Your task to perform on an android device: Open Android settings Image 0: 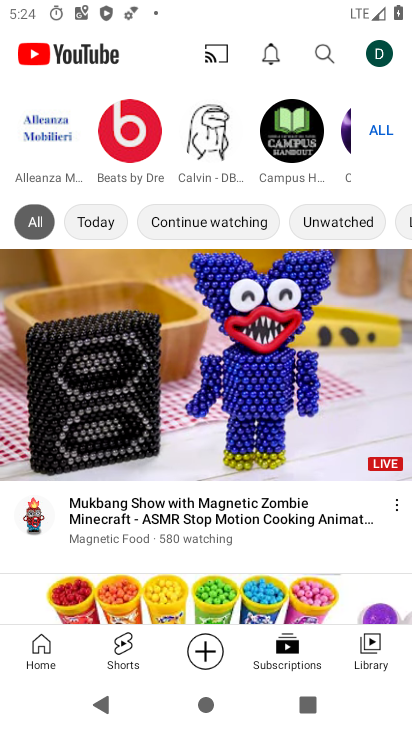
Step 0: press home button
Your task to perform on an android device: Open Android settings Image 1: 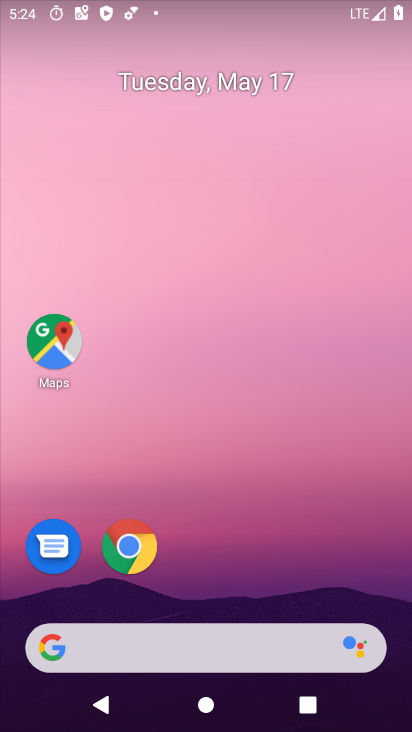
Step 1: drag from (270, 595) to (260, 151)
Your task to perform on an android device: Open Android settings Image 2: 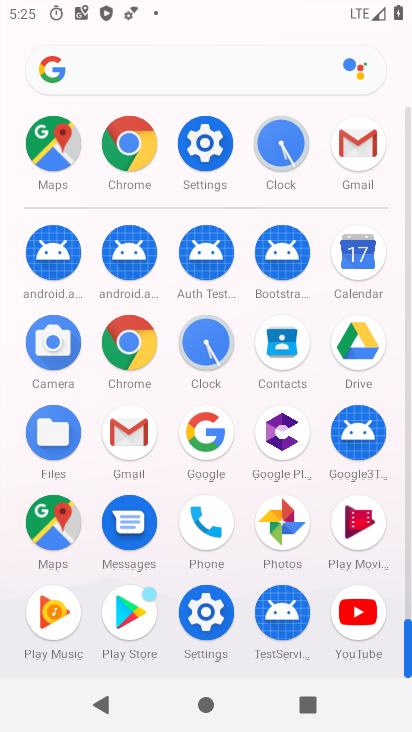
Step 2: click (203, 620)
Your task to perform on an android device: Open Android settings Image 3: 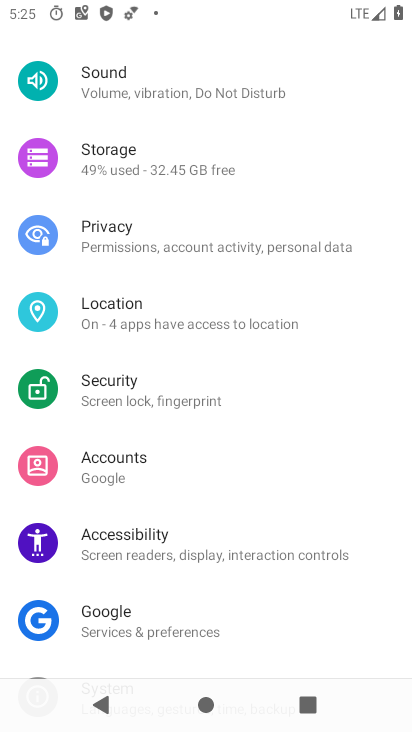
Step 3: drag from (174, 634) to (259, 394)
Your task to perform on an android device: Open Android settings Image 4: 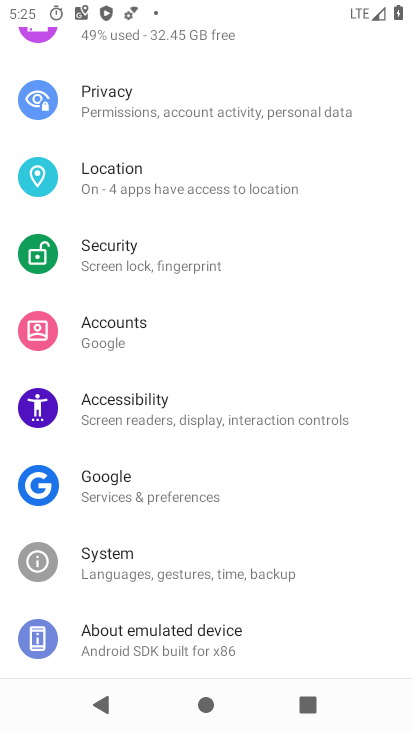
Step 4: click (179, 653)
Your task to perform on an android device: Open Android settings Image 5: 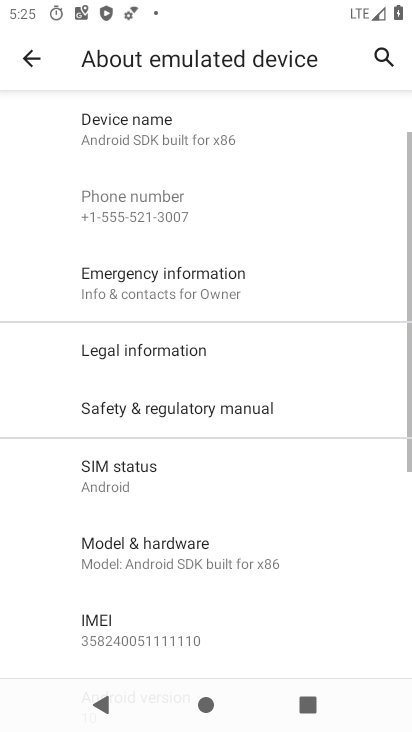
Step 5: drag from (149, 607) to (142, 334)
Your task to perform on an android device: Open Android settings Image 6: 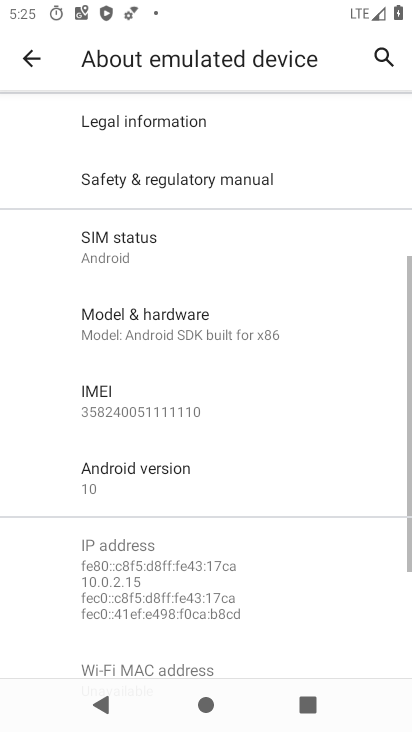
Step 6: click (132, 489)
Your task to perform on an android device: Open Android settings Image 7: 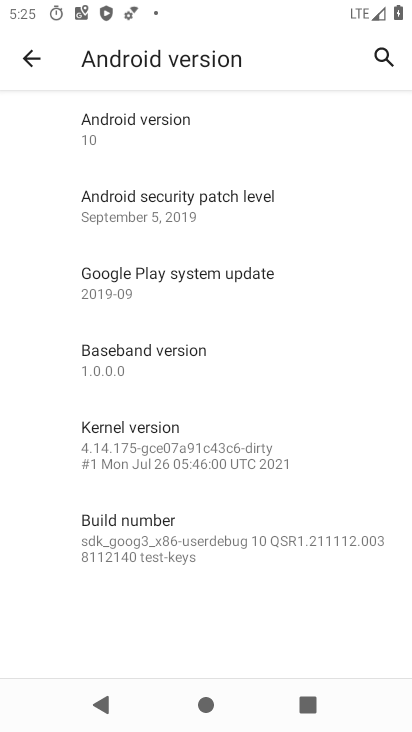
Step 7: task complete